Your task to perform on an android device: clear all cookies in the chrome app Image 0: 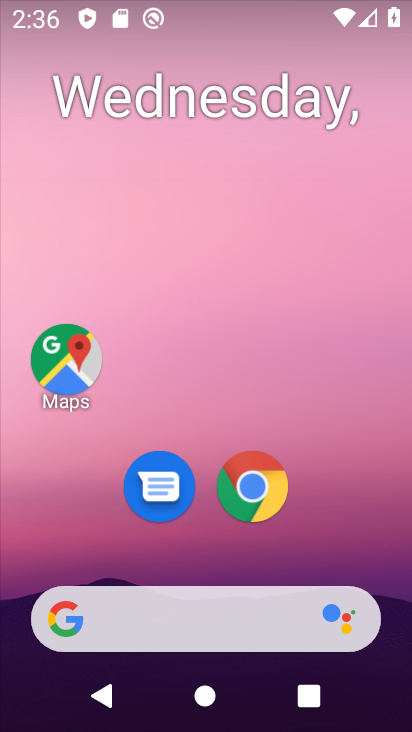
Step 0: click (258, 496)
Your task to perform on an android device: clear all cookies in the chrome app Image 1: 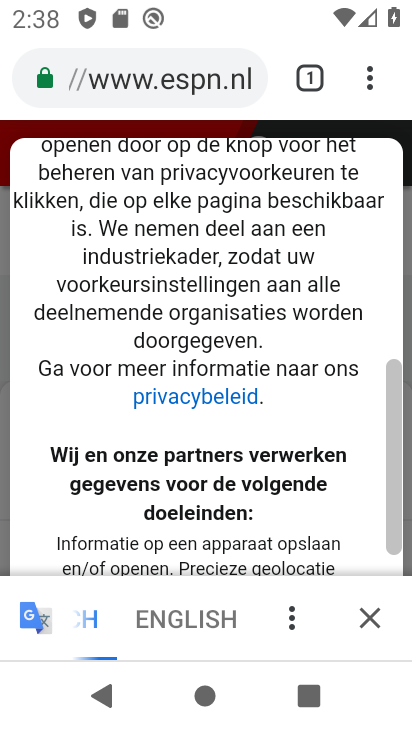
Step 1: click (374, 76)
Your task to perform on an android device: clear all cookies in the chrome app Image 2: 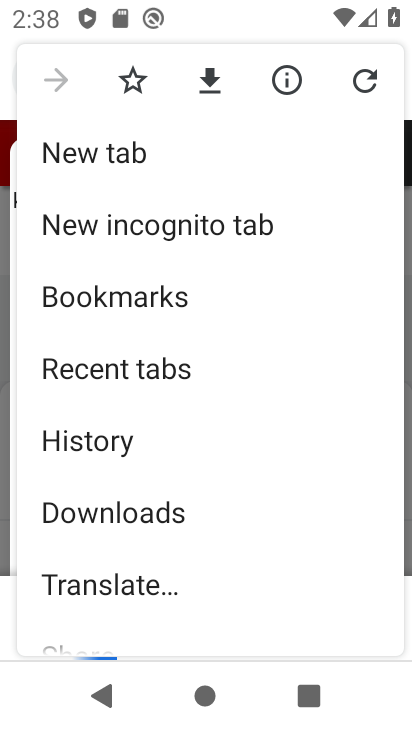
Step 2: click (120, 442)
Your task to perform on an android device: clear all cookies in the chrome app Image 3: 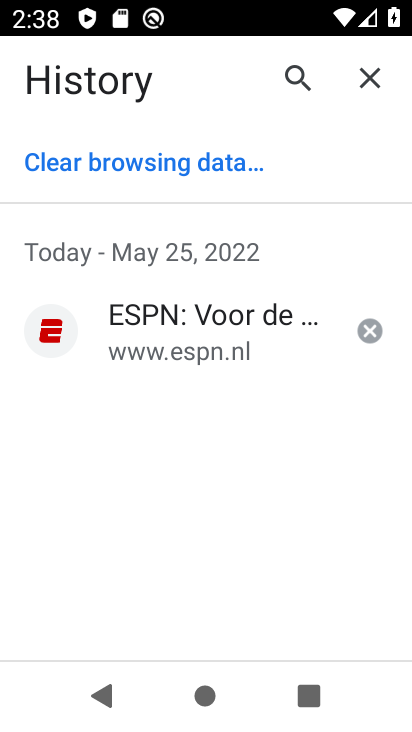
Step 3: click (231, 161)
Your task to perform on an android device: clear all cookies in the chrome app Image 4: 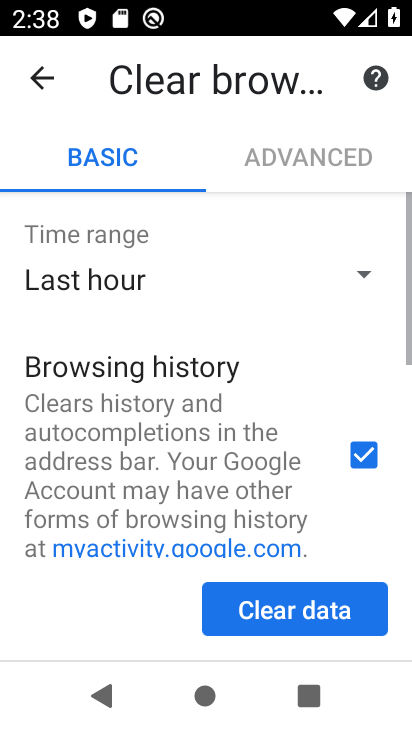
Step 4: click (351, 601)
Your task to perform on an android device: clear all cookies in the chrome app Image 5: 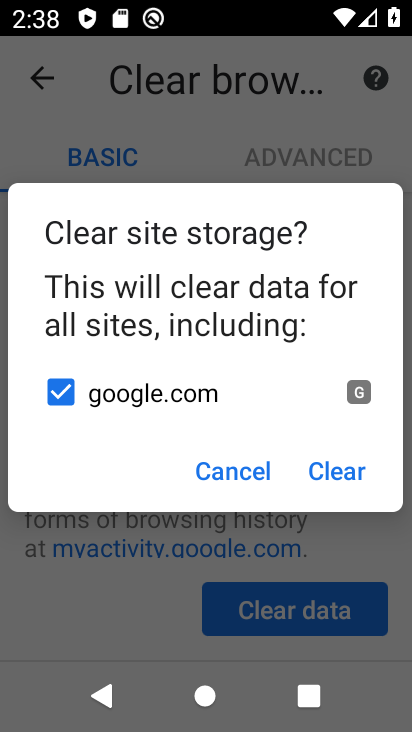
Step 5: click (352, 472)
Your task to perform on an android device: clear all cookies in the chrome app Image 6: 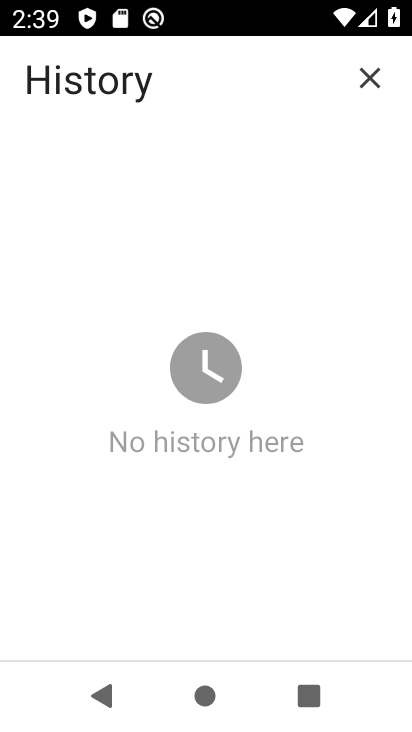
Step 6: task complete